Your task to perform on an android device: change the clock display to show seconds Image 0: 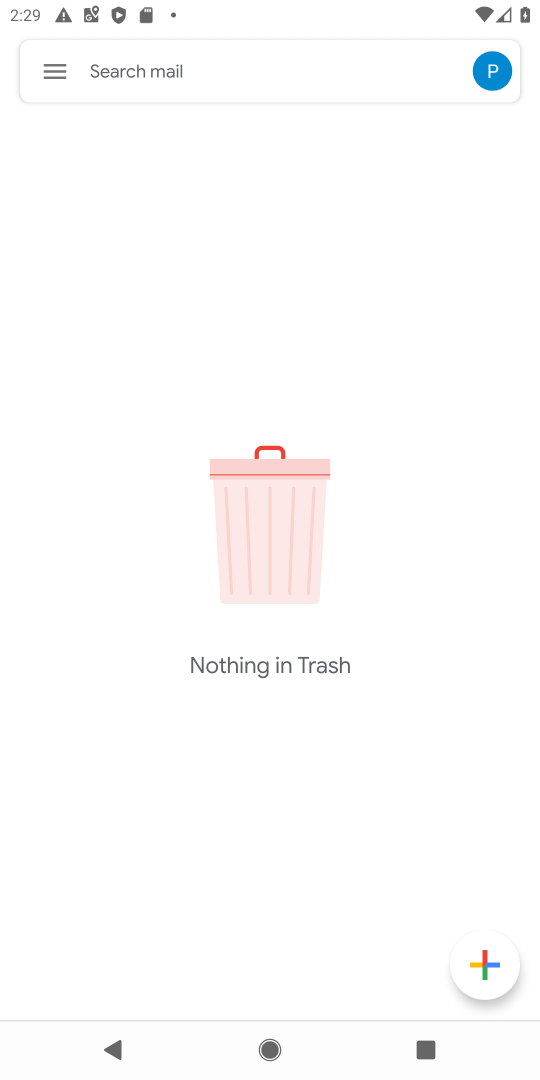
Step 0: press back button
Your task to perform on an android device: change the clock display to show seconds Image 1: 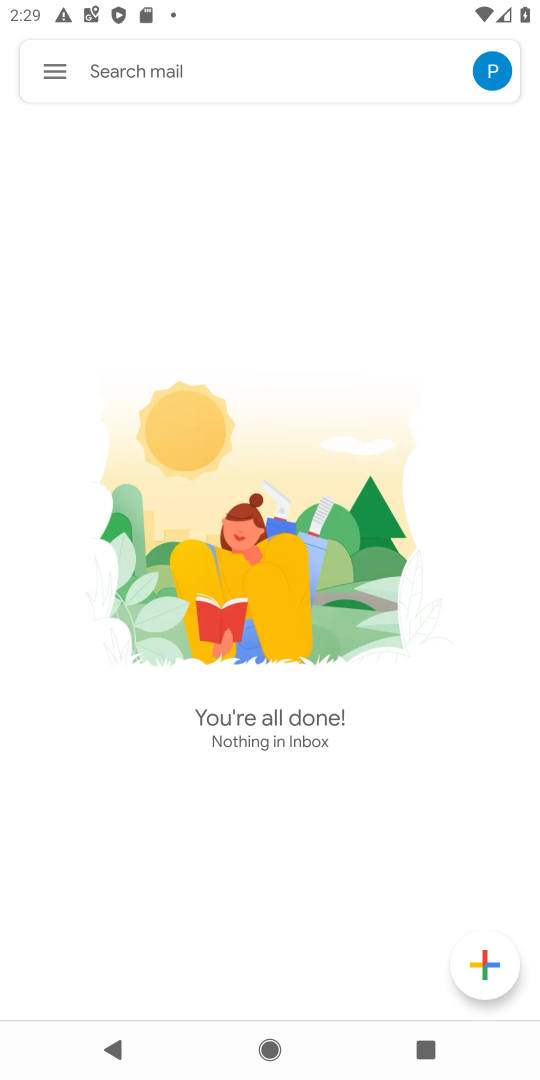
Step 1: press back button
Your task to perform on an android device: change the clock display to show seconds Image 2: 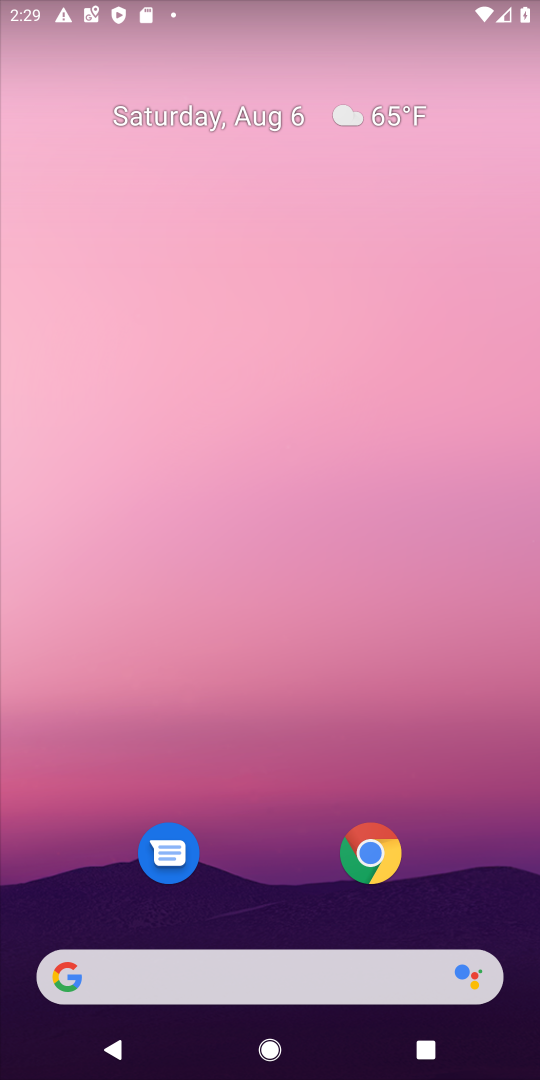
Step 2: drag from (263, 922) to (247, 147)
Your task to perform on an android device: change the clock display to show seconds Image 3: 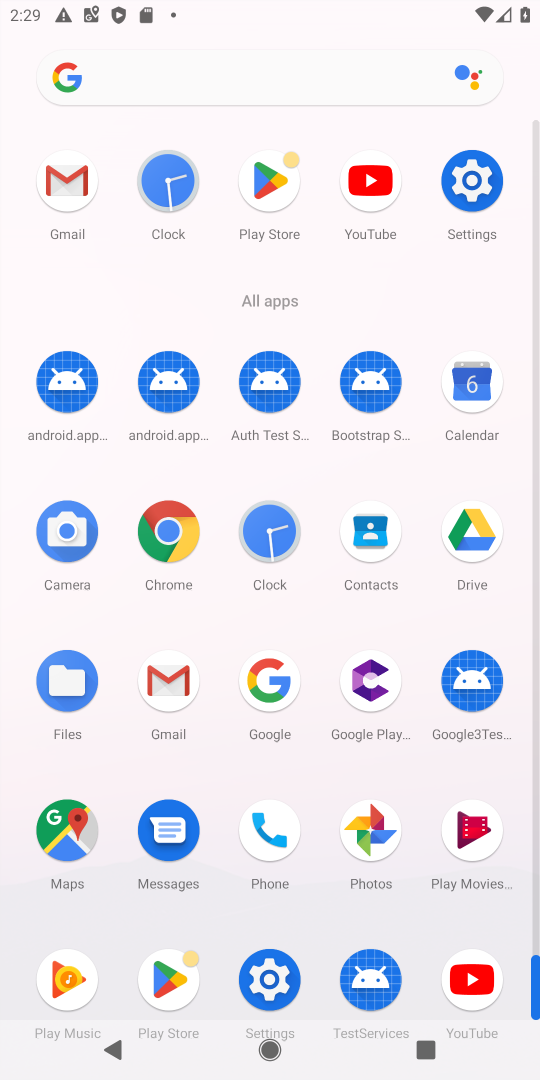
Step 3: click (165, 179)
Your task to perform on an android device: change the clock display to show seconds Image 4: 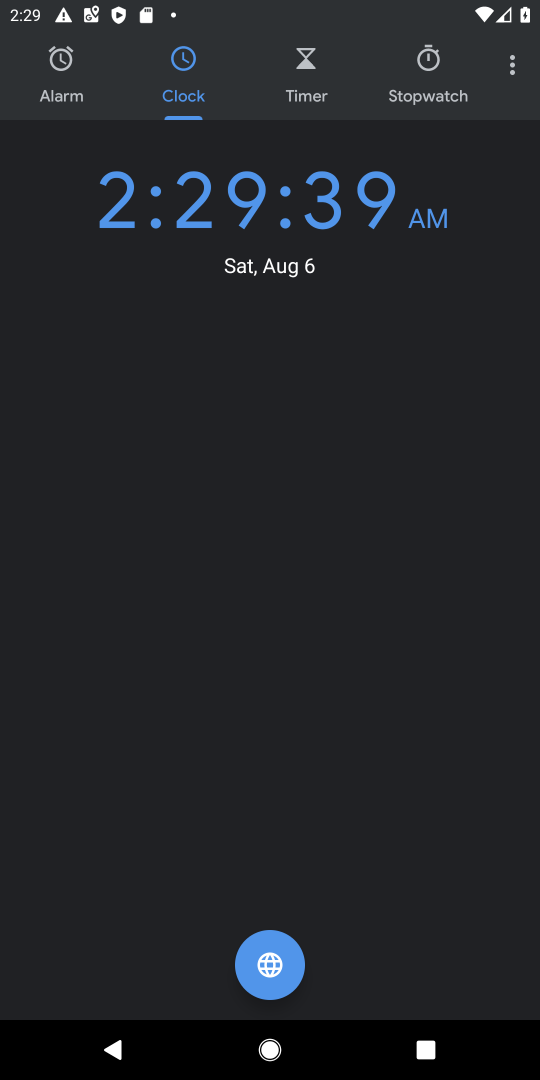
Step 4: click (500, 75)
Your task to perform on an android device: change the clock display to show seconds Image 5: 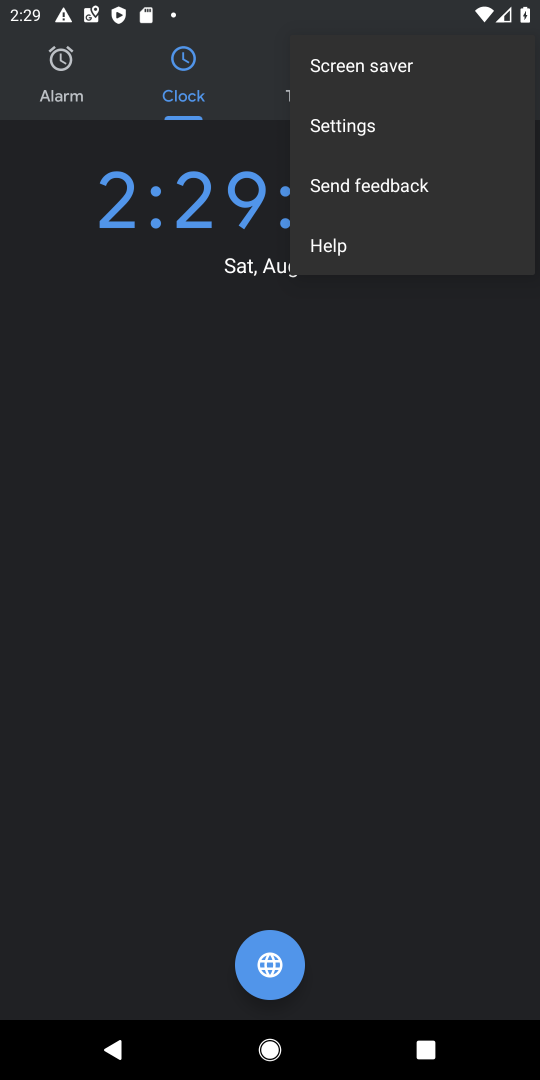
Step 5: click (381, 124)
Your task to perform on an android device: change the clock display to show seconds Image 6: 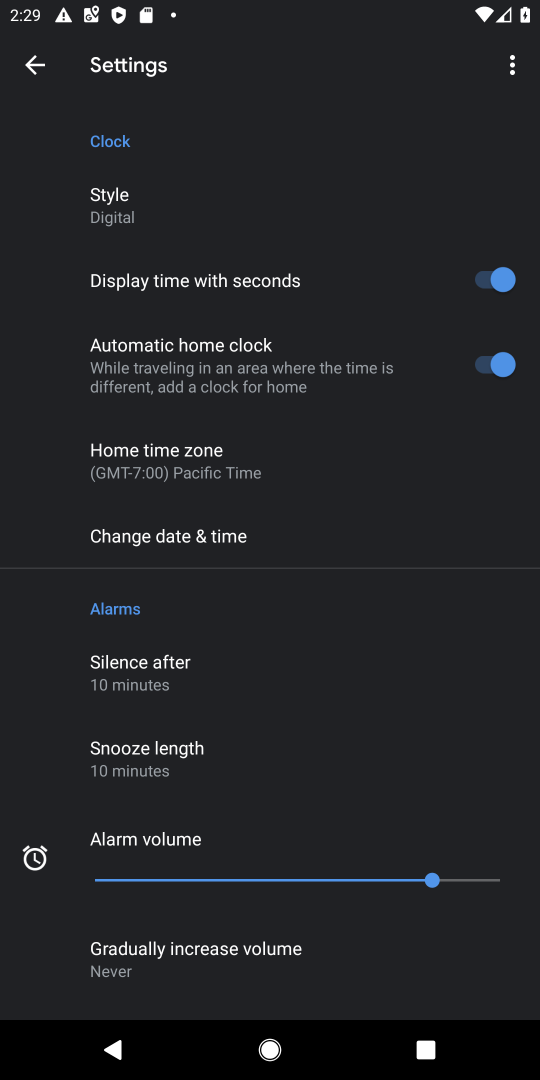
Step 6: click (176, 222)
Your task to perform on an android device: change the clock display to show seconds Image 7: 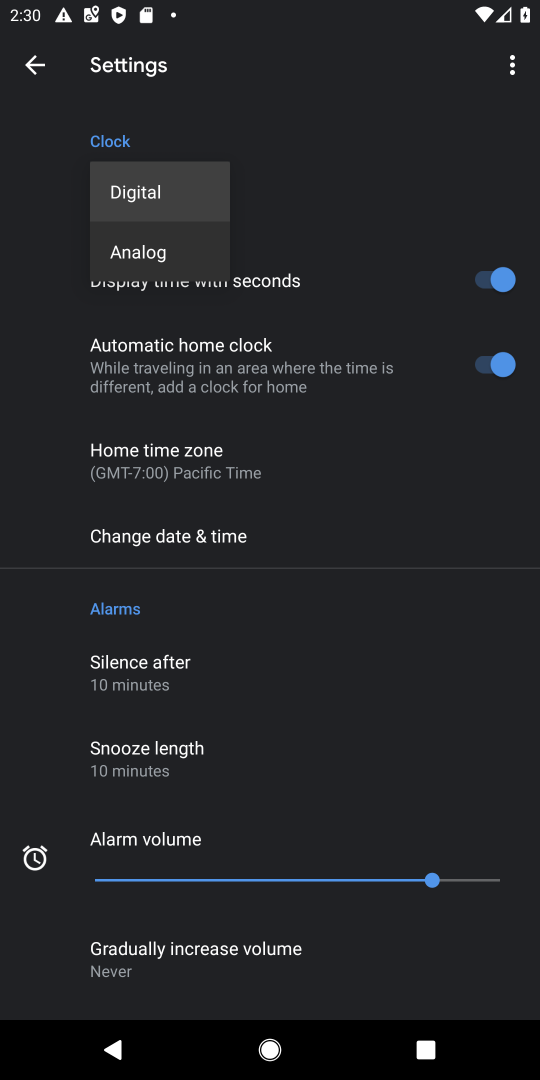
Step 7: click (128, 187)
Your task to perform on an android device: change the clock display to show seconds Image 8: 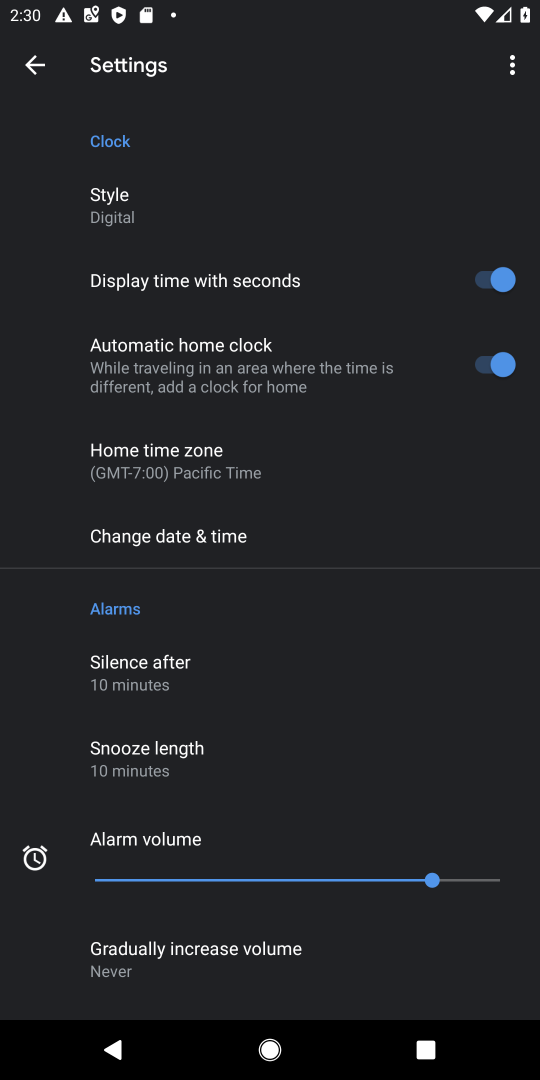
Step 8: task complete